Your task to perform on an android device: turn pop-ups on in chrome Image 0: 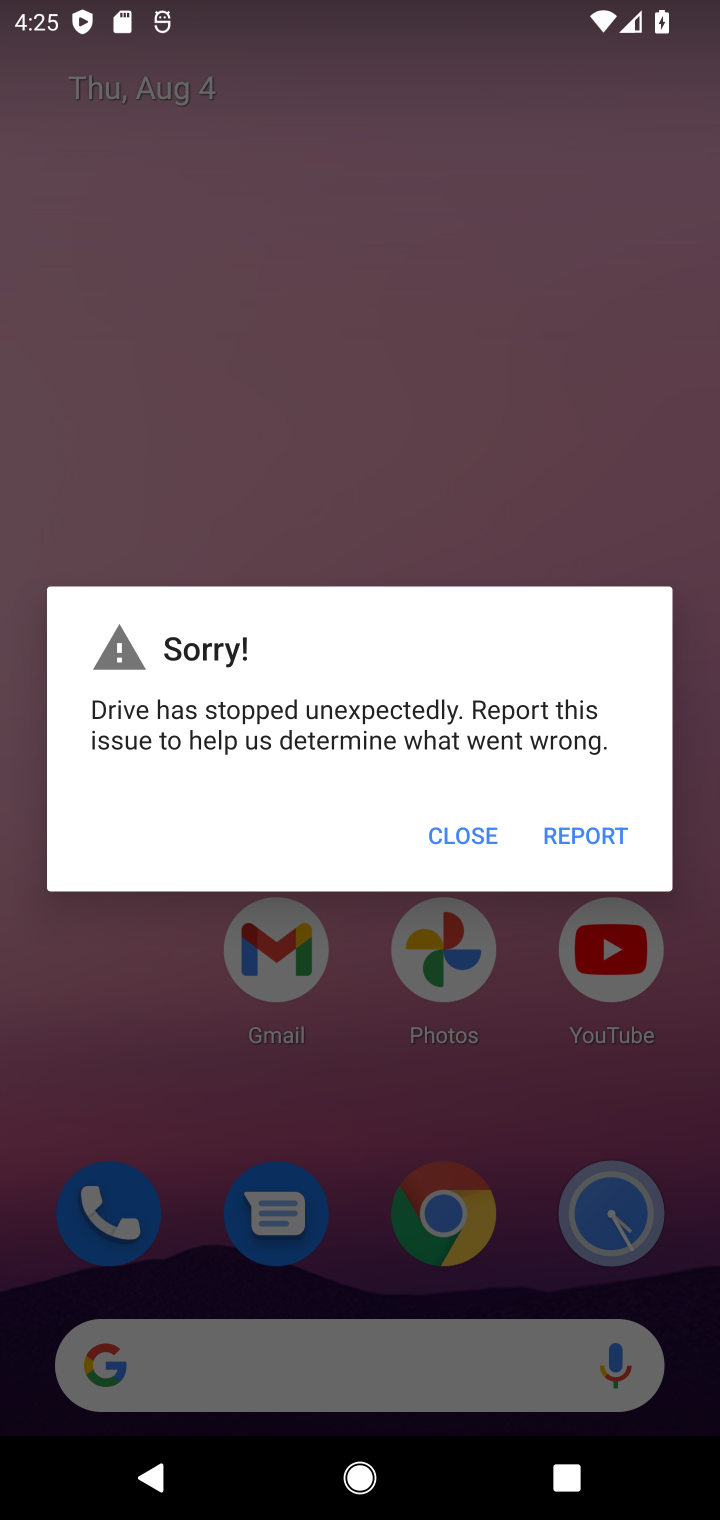
Step 0: press home button
Your task to perform on an android device: turn pop-ups on in chrome Image 1: 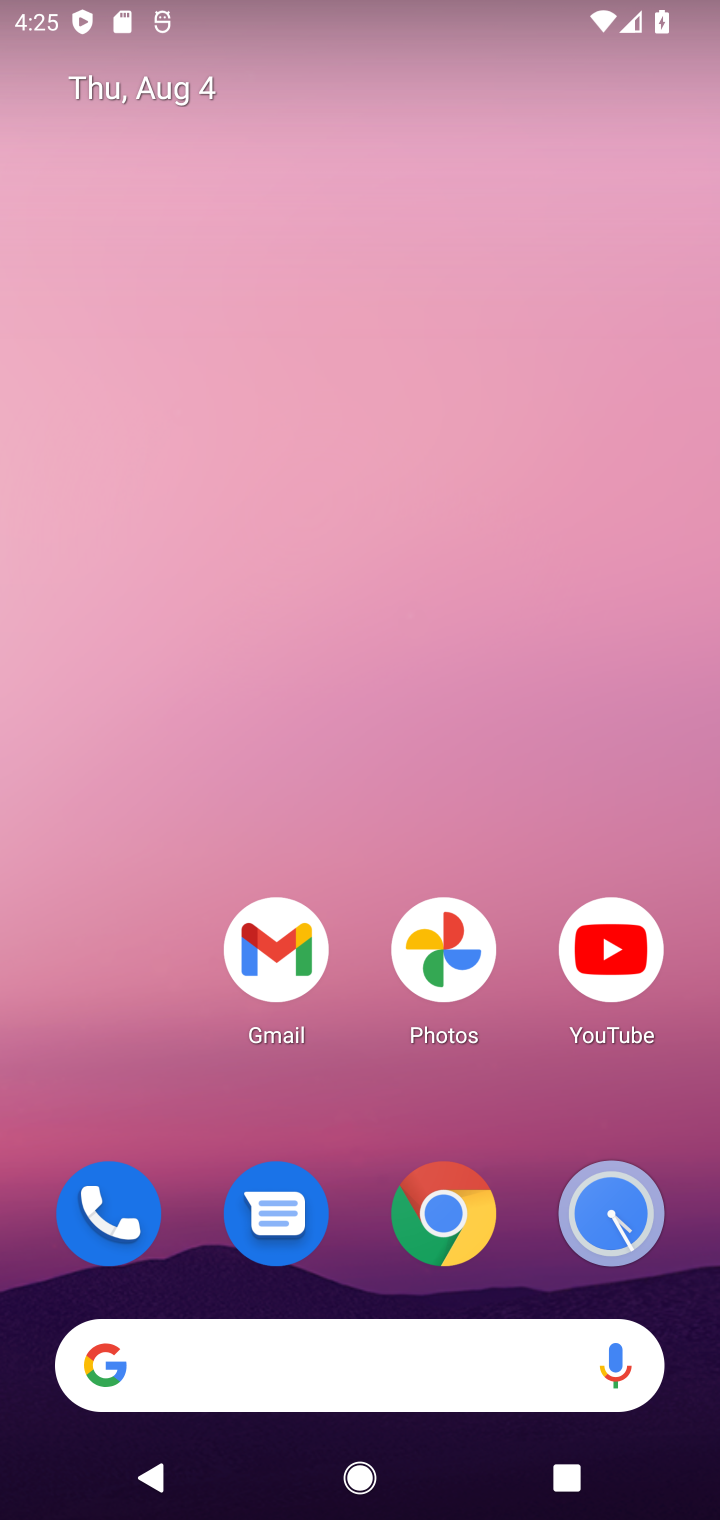
Step 1: click (443, 1213)
Your task to perform on an android device: turn pop-ups on in chrome Image 2: 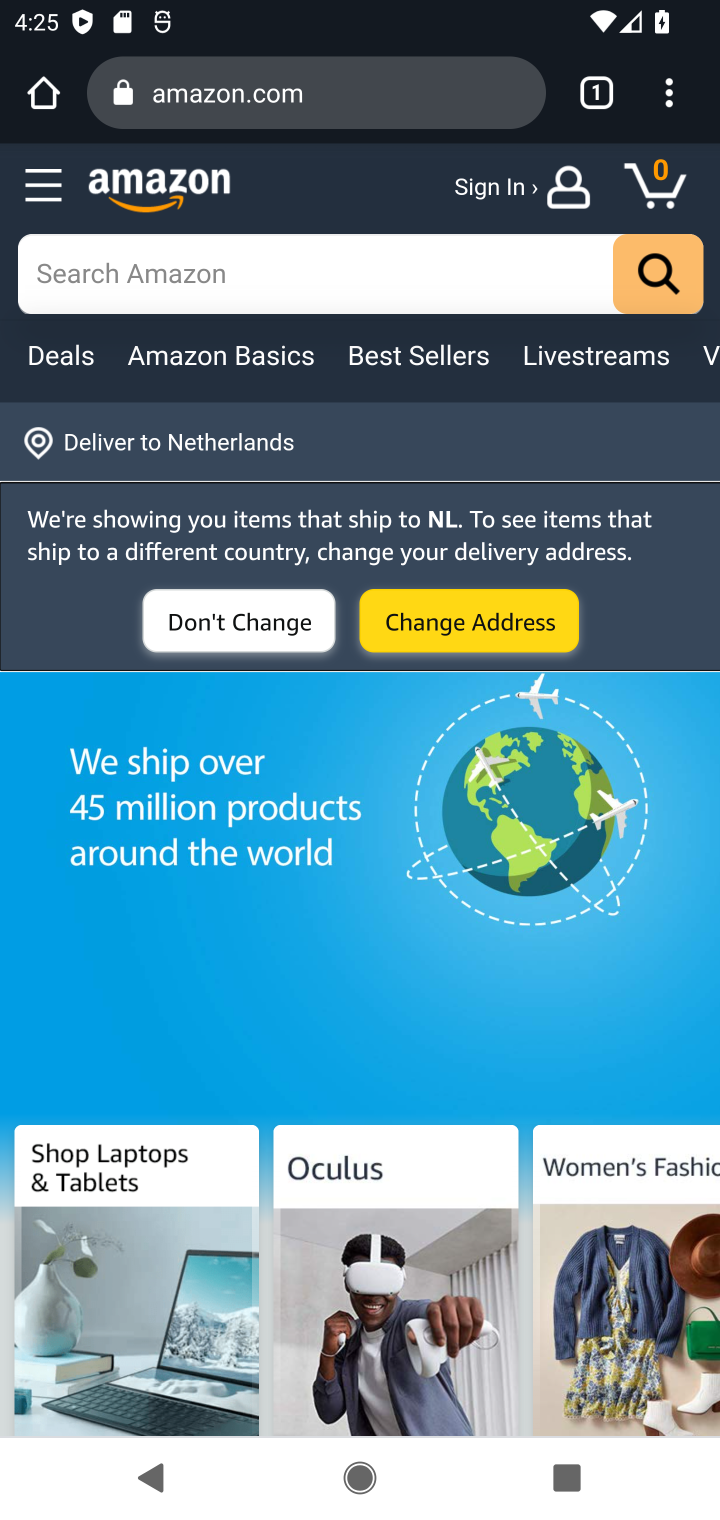
Step 2: click (670, 108)
Your task to perform on an android device: turn pop-ups on in chrome Image 3: 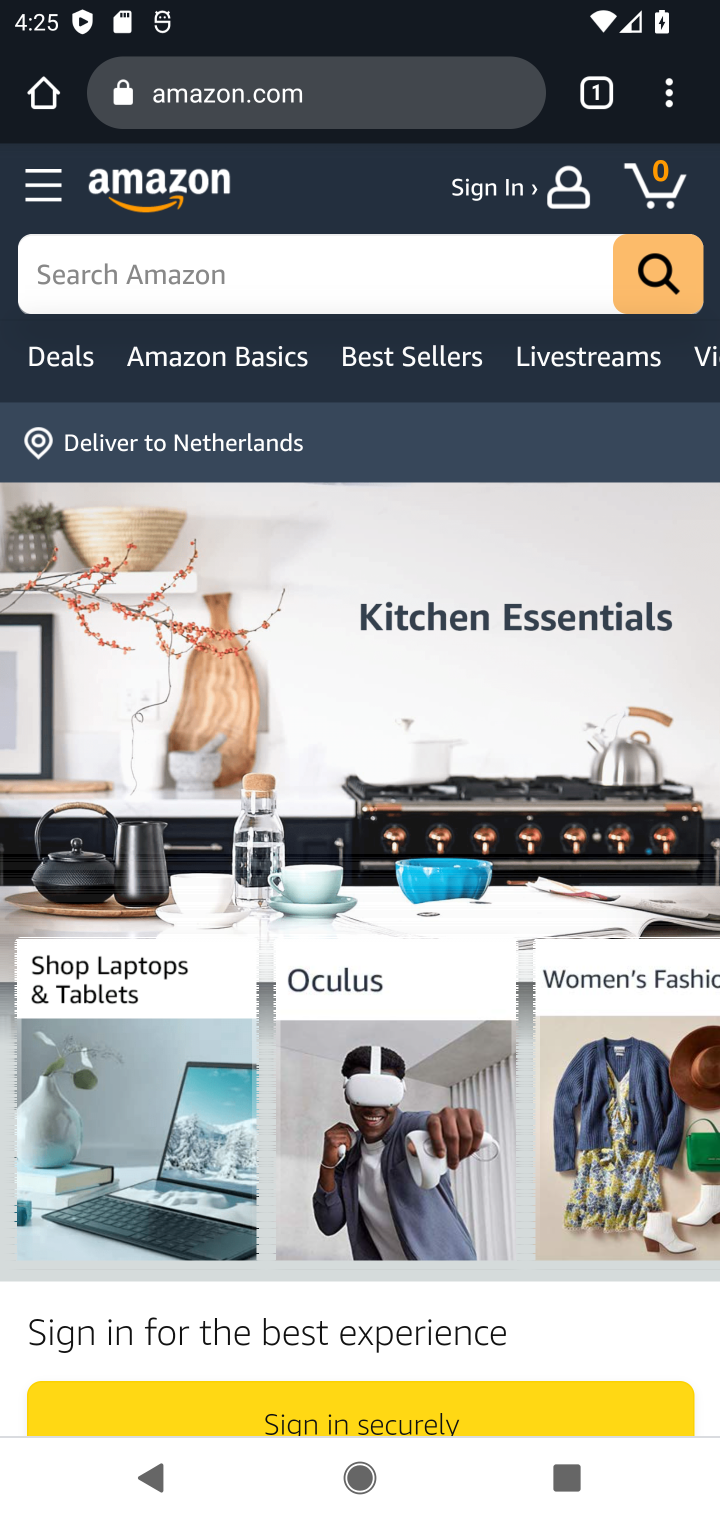
Step 3: click (673, 96)
Your task to perform on an android device: turn pop-ups on in chrome Image 4: 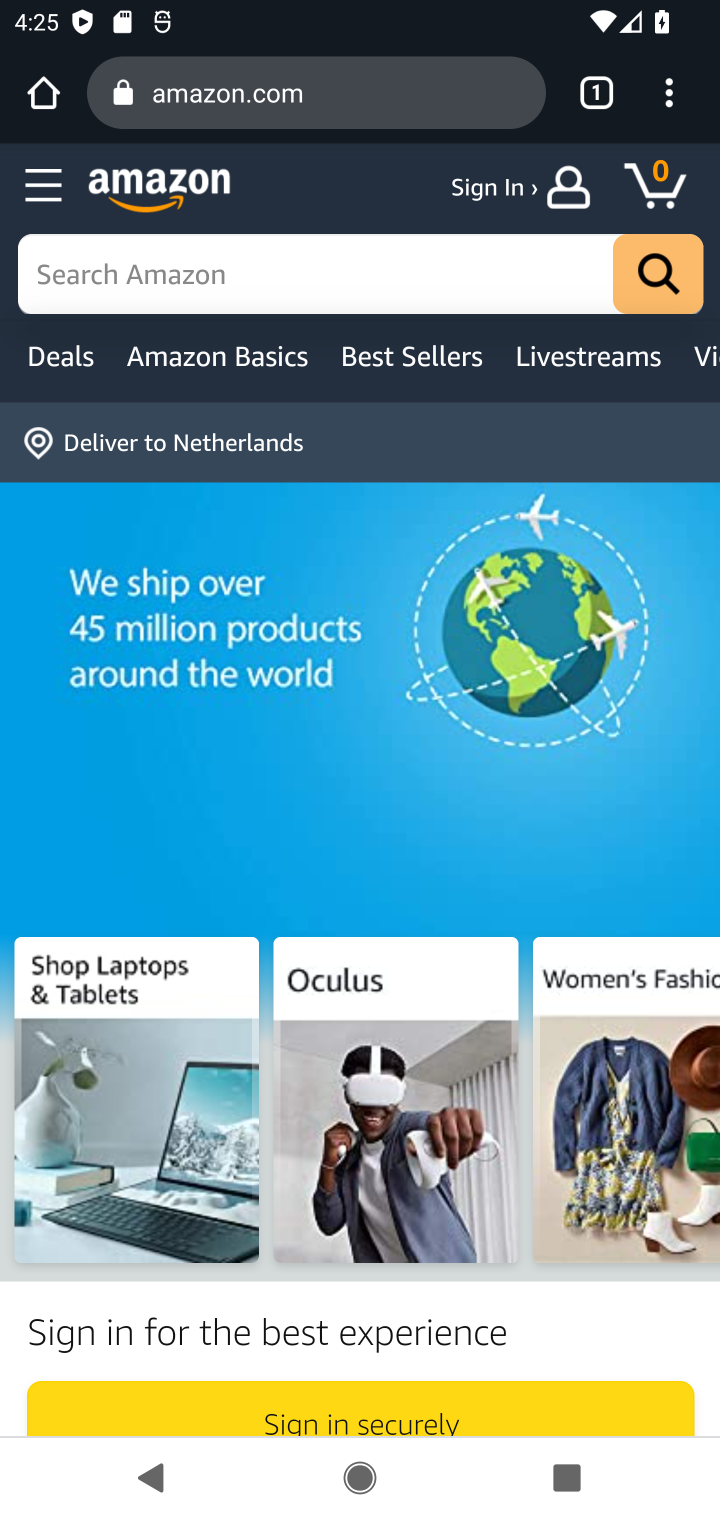
Step 4: drag from (673, 96) to (414, 1224)
Your task to perform on an android device: turn pop-ups on in chrome Image 5: 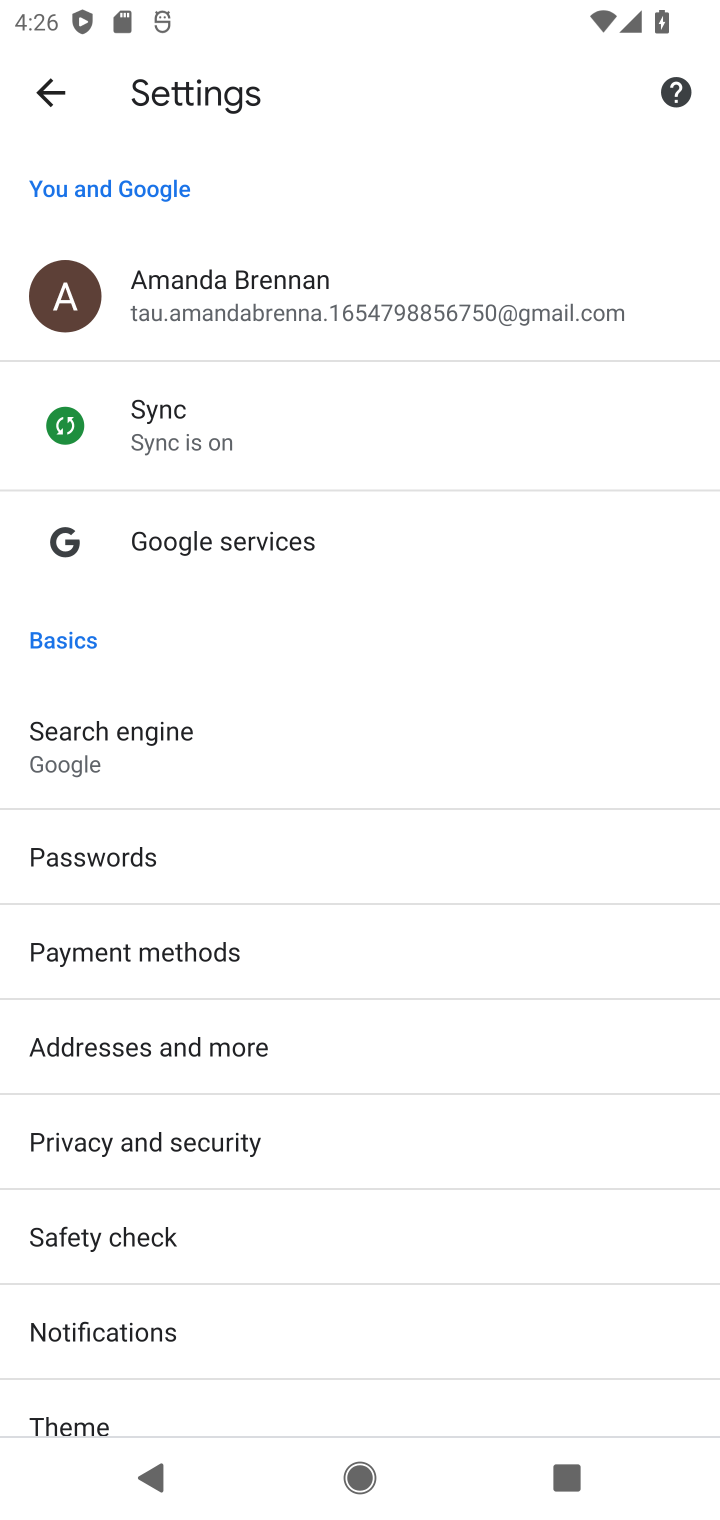
Step 5: drag from (213, 1251) to (371, 717)
Your task to perform on an android device: turn pop-ups on in chrome Image 6: 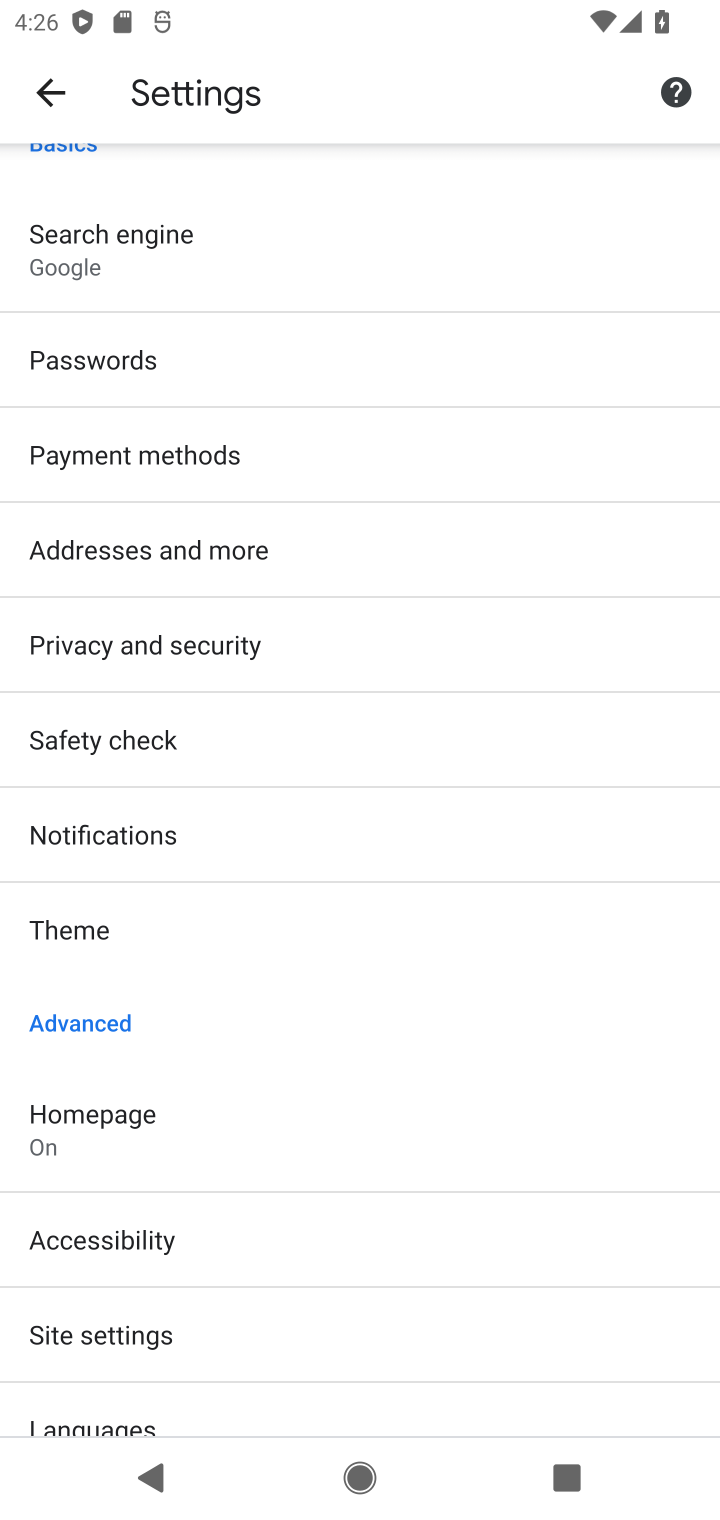
Step 6: click (130, 1332)
Your task to perform on an android device: turn pop-ups on in chrome Image 7: 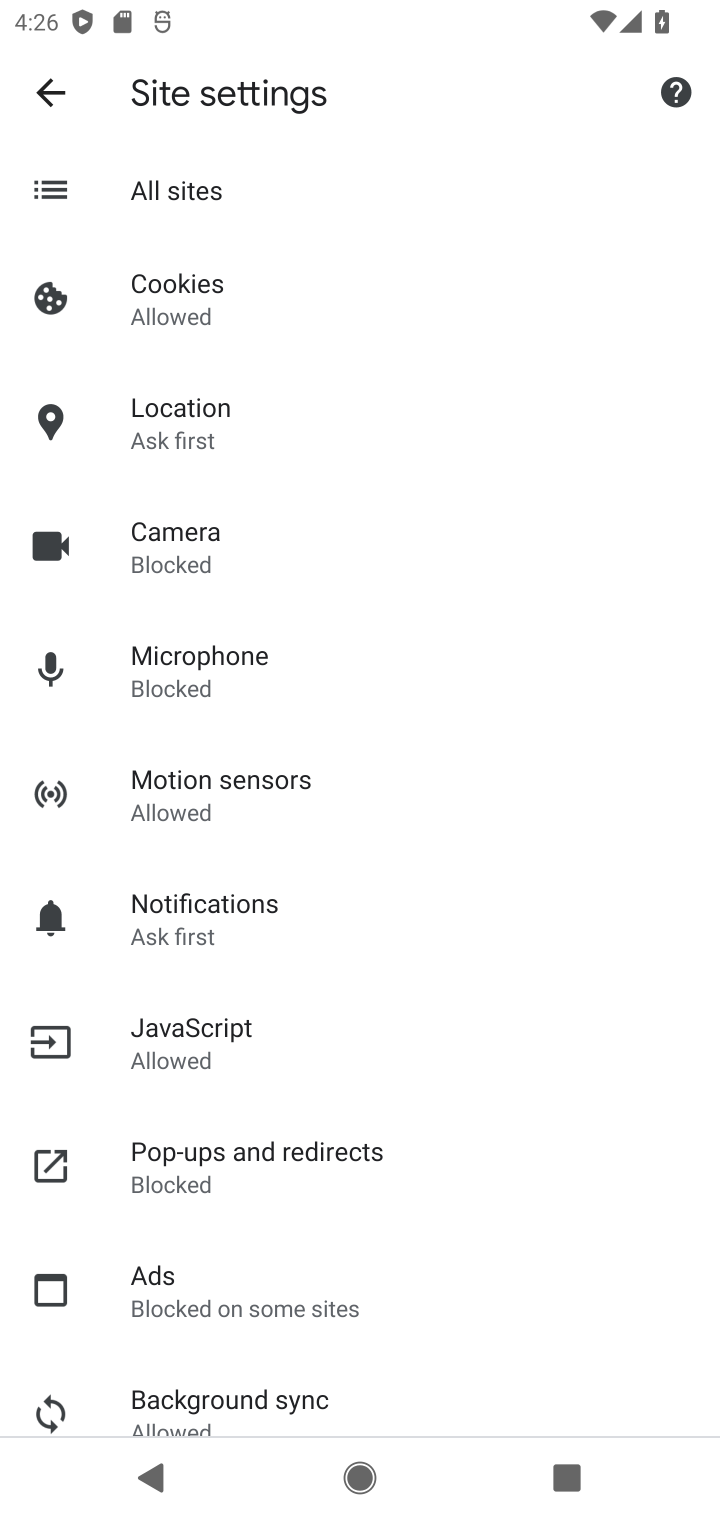
Step 7: click (223, 1172)
Your task to perform on an android device: turn pop-ups on in chrome Image 8: 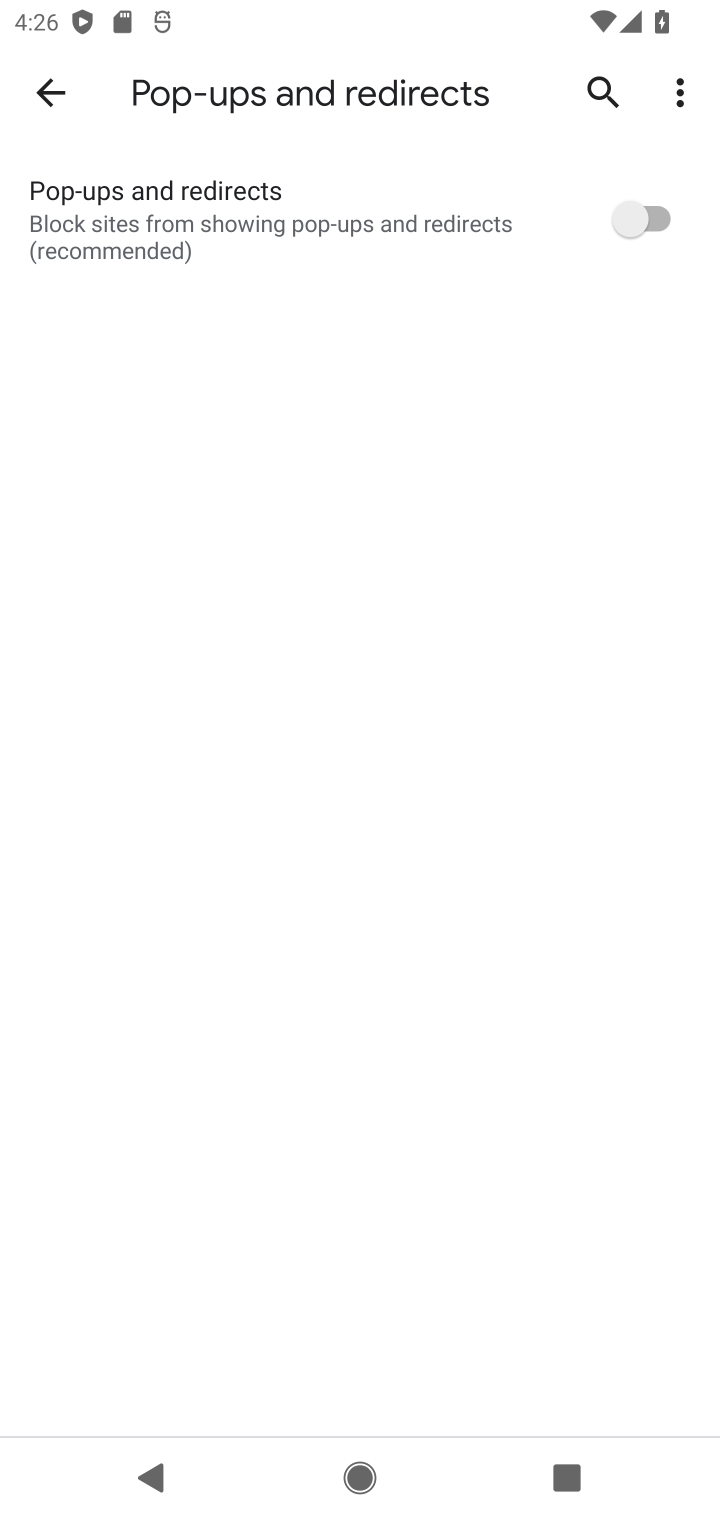
Step 8: click (631, 226)
Your task to perform on an android device: turn pop-ups on in chrome Image 9: 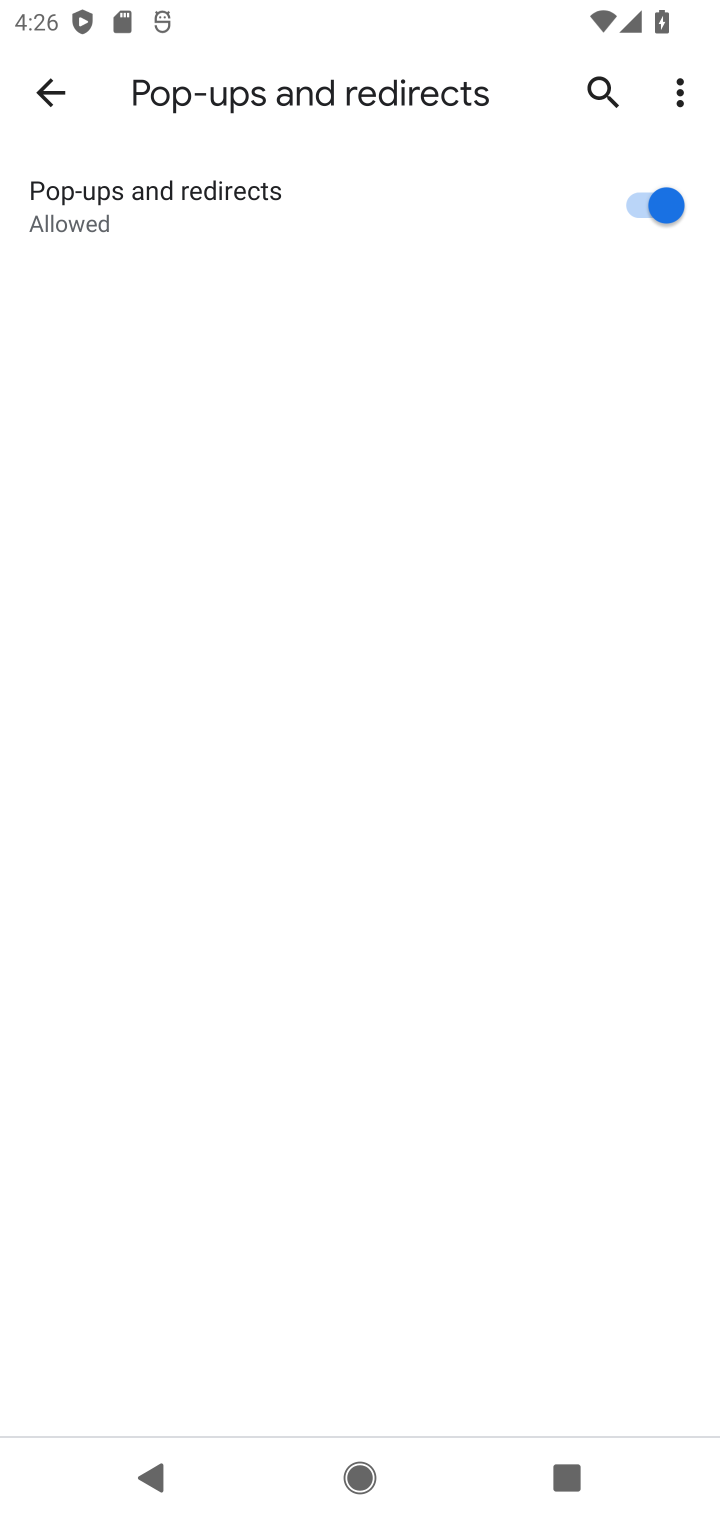
Step 9: task complete